Your task to perform on an android device: empty trash in google photos Image 0: 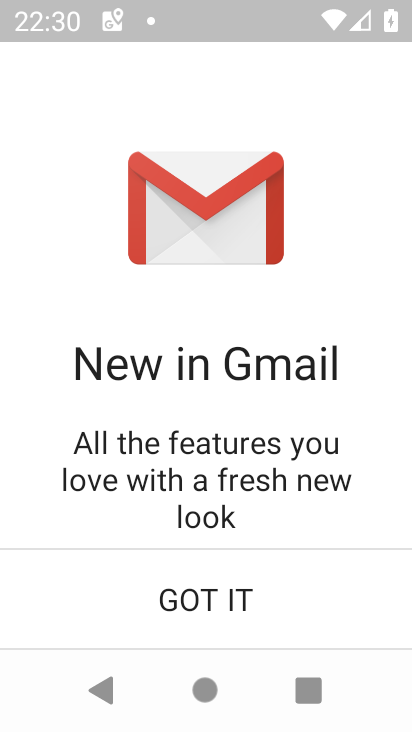
Step 0: press home button
Your task to perform on an android device: empty trash in google photos Image 1: 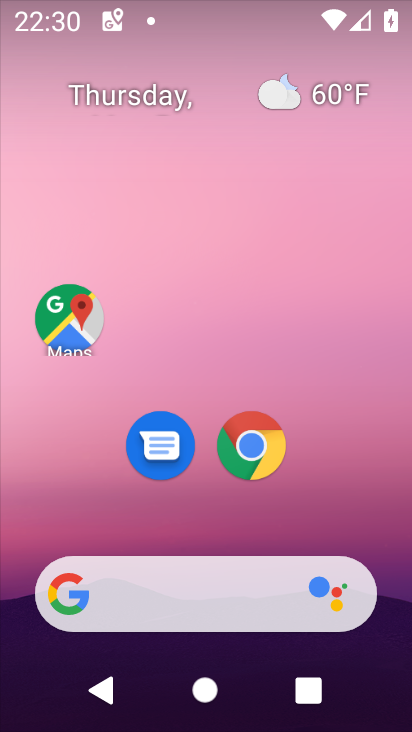
Step 1: drag from (204, 576) to (232, 121)
Your task to perform on an android device: empty trash in google photos Image 2: 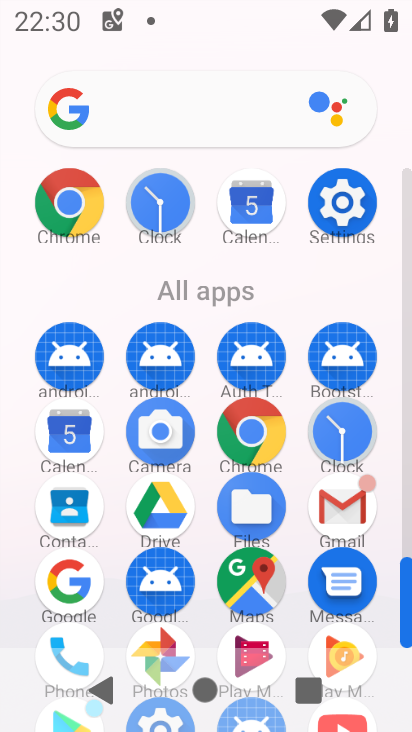
Step 2: click (170, 636)
Your task to perform on an android device: empty trash in google photos Image 3: 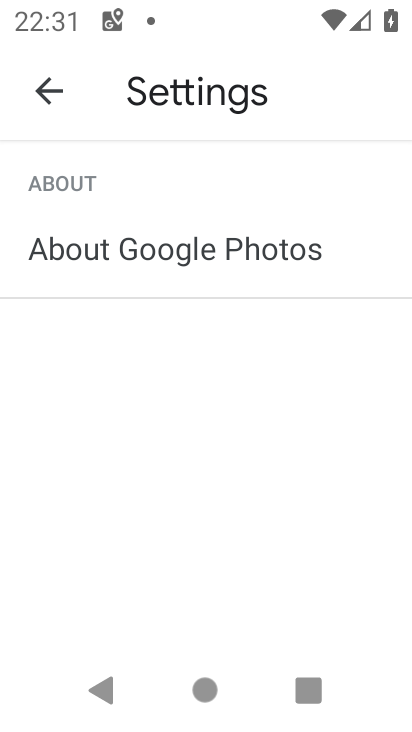
Step 3: click (47, 77)
Your task to perform on an android device: empty trash in google photos Image 4: 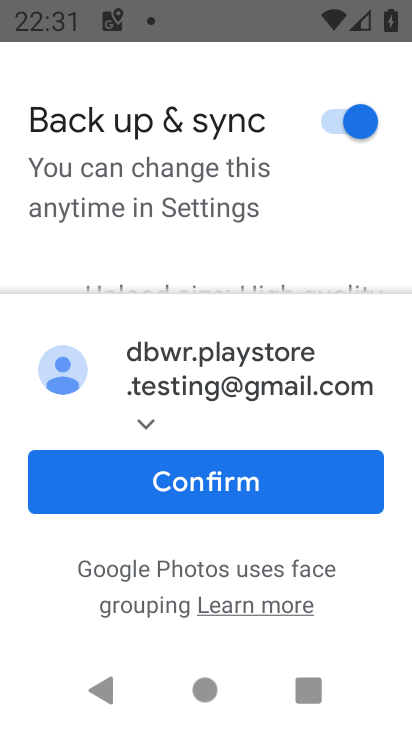
Step 4: click (247, 505)
Your task to perform on an android device: empty trash in google photos Image 5: 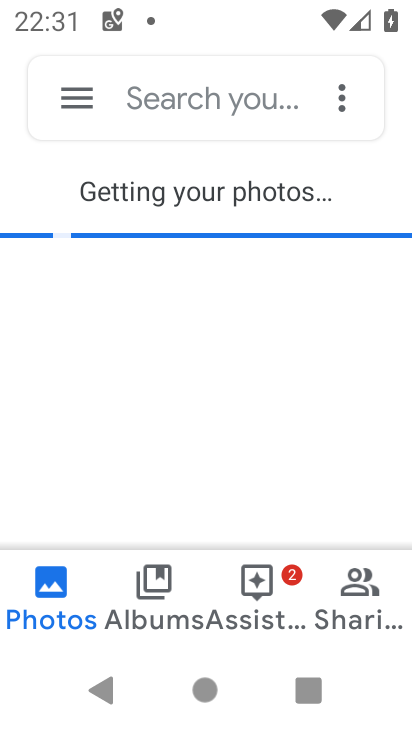
Step 5: click (79, 104)
Your task to perform on an android device: empty trash in google photos Image 6: 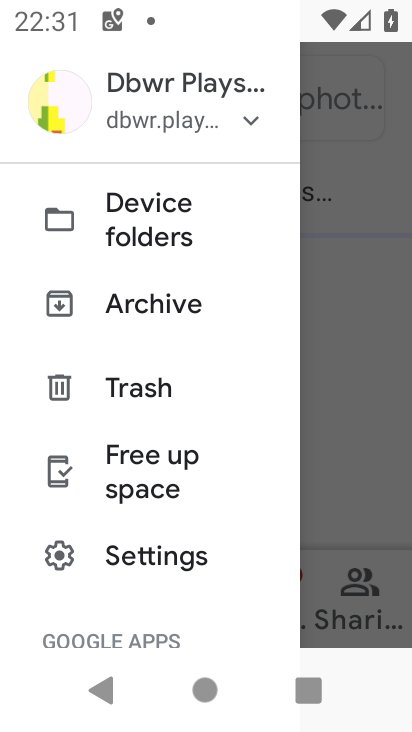
Step 6: click (97, 381)
Your task to perform on an android device: empty trash in google photos Image 7: 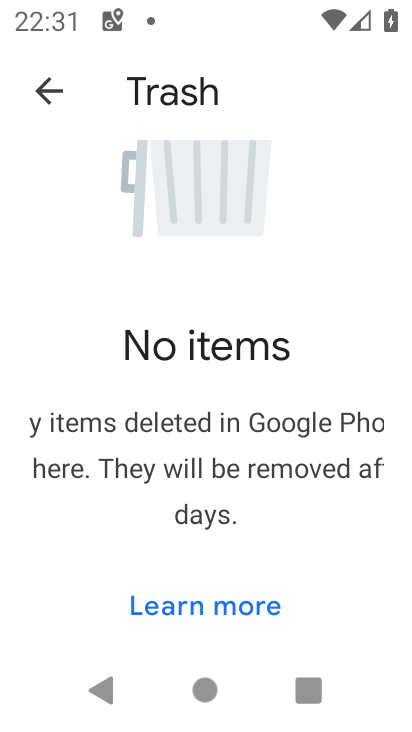
Step 7: task complete